Your task to perform on an android device: see creations saved in the google photos Image 0: 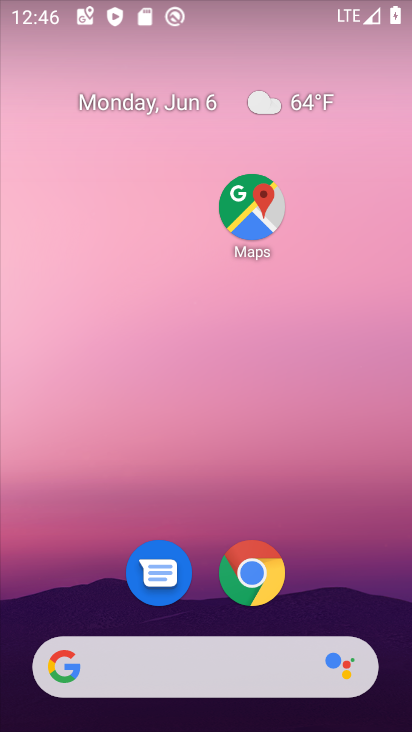
Step 0: drag from (203, 465) to (158, 0)
Your task to perform on an android device: see creations saved in the google photos Image 1: 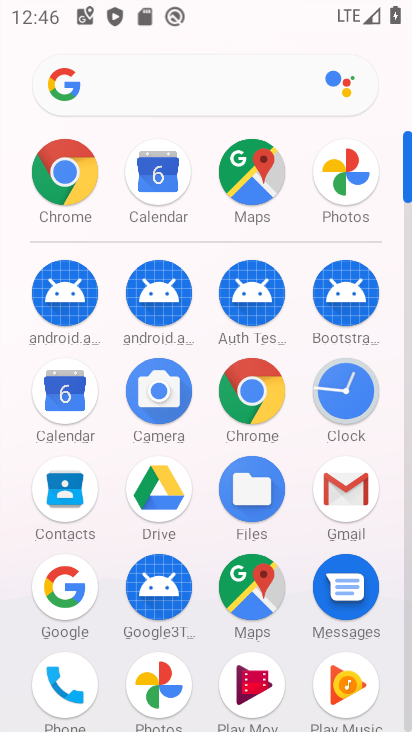
Step 1: click (159, 698)
Your task to perform on an android device: see creations saved in the google photos Image 2: 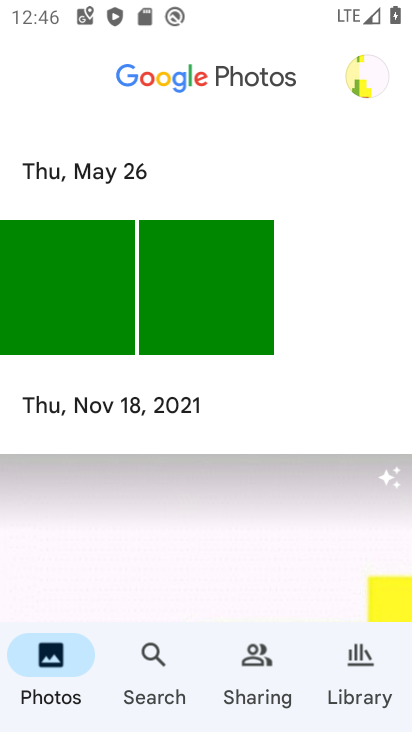
Step 2: click (161, 669)
Your task to perform on an android device: see creations saved in the google photos Image 3: 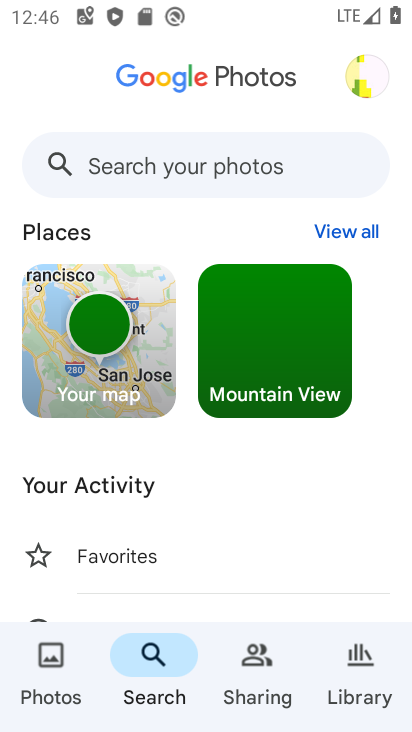
Step 3: click (176, 173)
Your task to perform on an android device: see creations saved in the google photos Image 4: 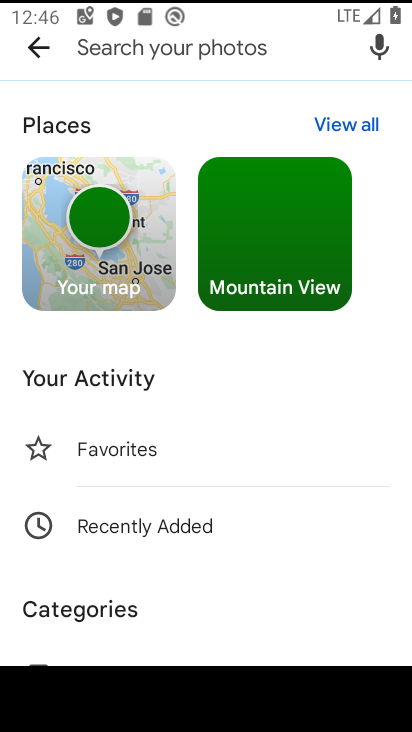
Step 4: drag from (162, 615) to (232, 89)
Your task to perform on an android device: see creations saved in the google photos Image 5: 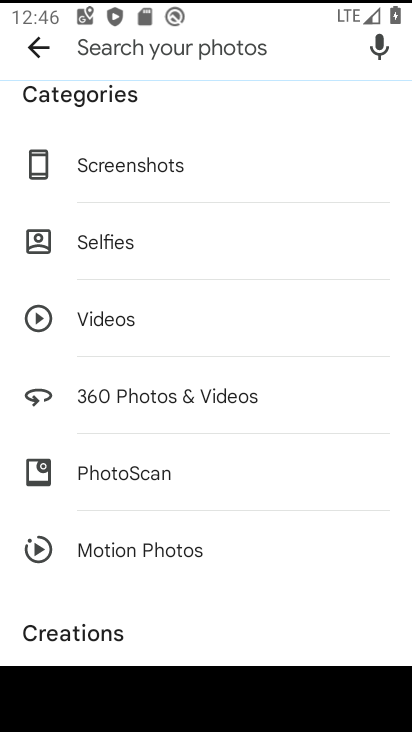
Step 5: drag from (171, 608) to (245, 162)
Your task to perform on an android device: see creations saved in the google photos Image 6: 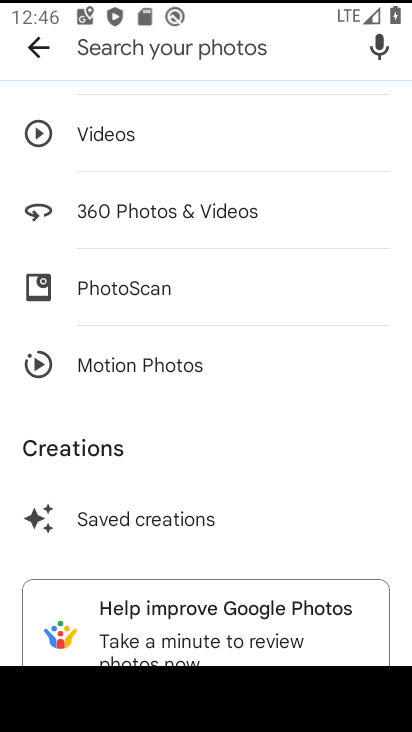
Step 6: click (138, 515)
Your task to perform on an android device: see creations saved in the google photos Image 7: 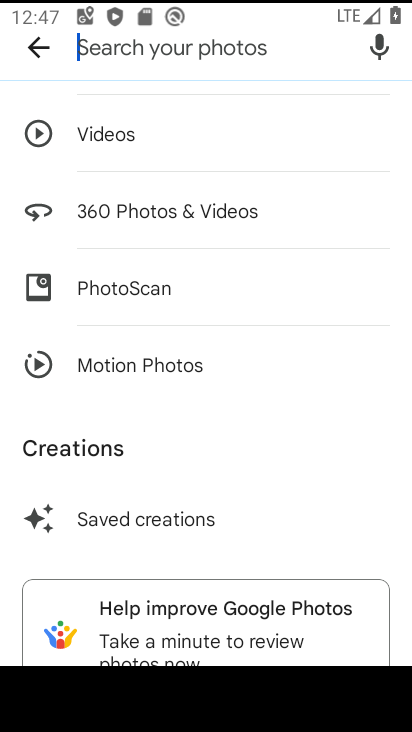
Step 7: task complete